Your task to perform on an android device: Open Reddit.com Image 0: 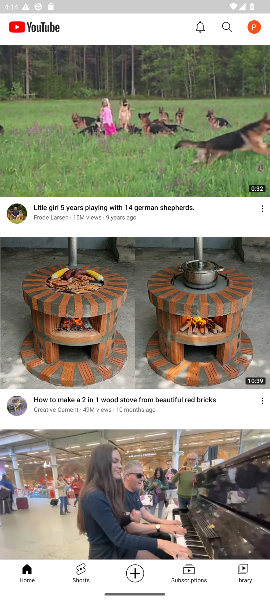
Step 0: press home button
Your task to perform on an android device: Open Reddit.com Image 1: 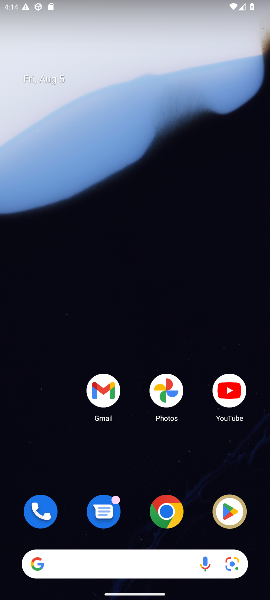
Step 1: click (164, 522)
Your task to perform on an android device: Open Reddit.com Image 2: 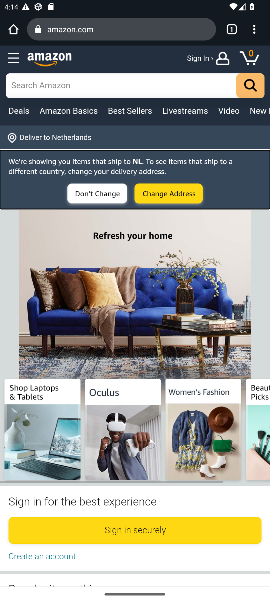
Step 2: click (235, 26)
Your task to perform on an android device: Open Reddit.com Image 3: 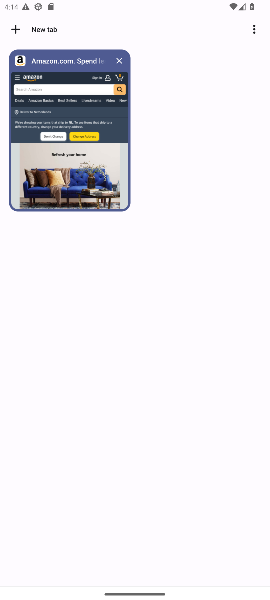
Step 3: click (17, 21)
Your task to perform on an android device: Open Reddit.com Image 4: 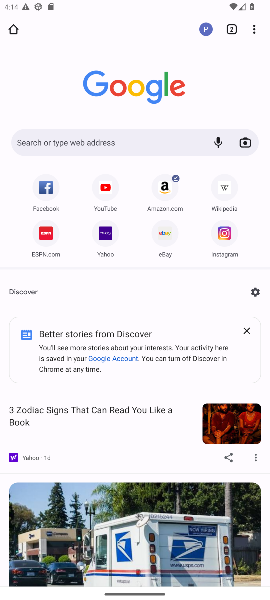
Step 4: click (66, 143)
Your task to perform on an android device: Open Reddit.com Image 5: 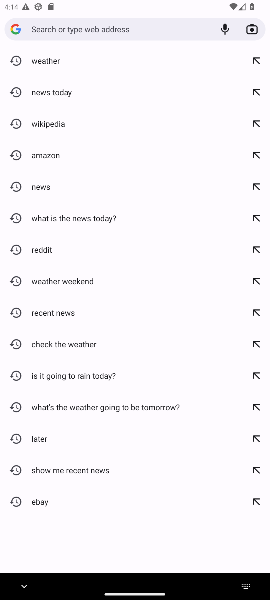
Step 5: type "Reddit.com"
Your task to perform on an android device: Open Reddit.com Image 6: 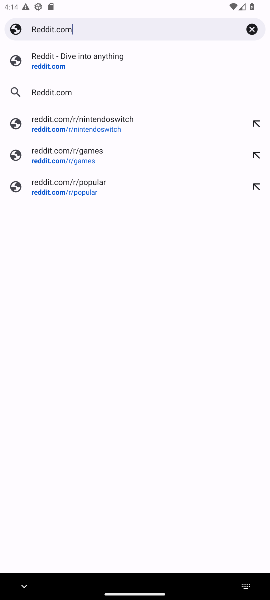
Step 6: type ""
Your task to perform on an android device: Open Reddit.com Image 7: 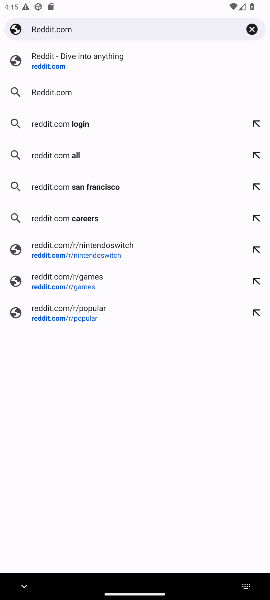
Step 7: click (70, 54)
Your task to perform on an android device: Open Reddit.com Image 8: 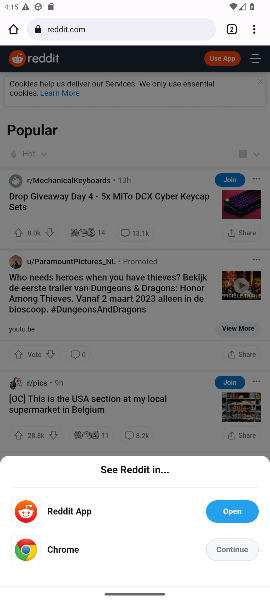
Step 8: click (227, 513)
Your task to perform on an android device: Open Reddit.com Image 9: 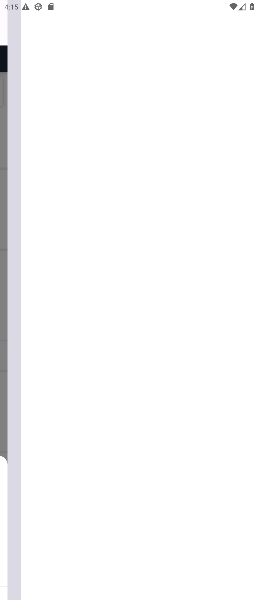
Step 9: task complete